Your task to perform on an android device: Open calendar and show me the first week of next month Image 0: 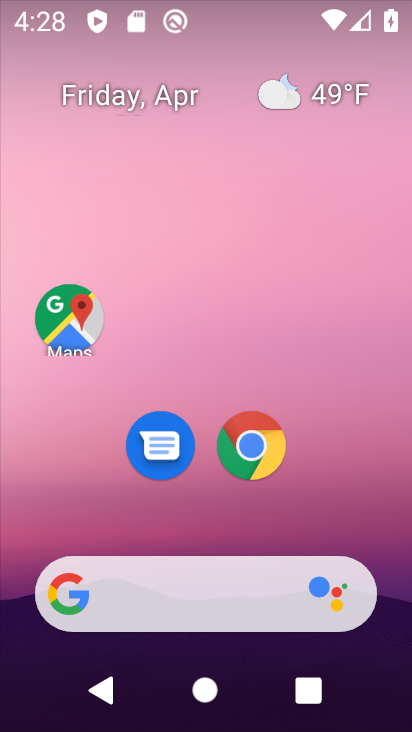
Step 0: drag from (335, 495) to (294, 128)
Your task to perform on an android device: Open calendar and show me the first week of next month Image 1: 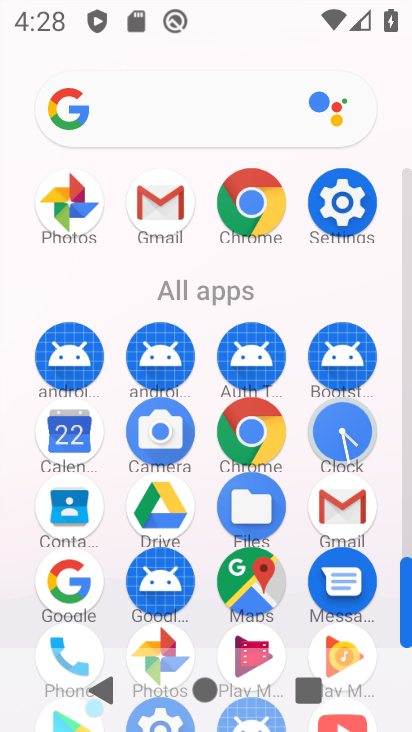
Step 1: drag from (82, 516) to (139, 294)
Your task to perform on an android device: Open calendar and show me the first week of next month Image 2: 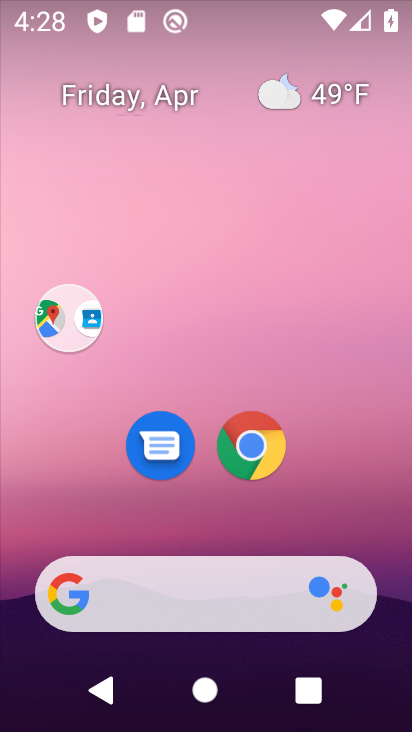
Step 2: drag from (342, 524) to (310, 198)
Your task to perform on an android device: Open calendar and show me the first week of next month Image 3: 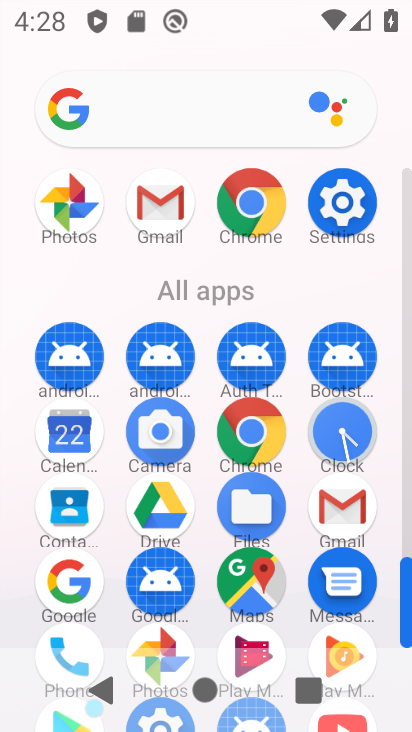
Step 3: click (73, 439)
Your task to perform on an android device: Open calendar and show me the first week of next month Image 4: 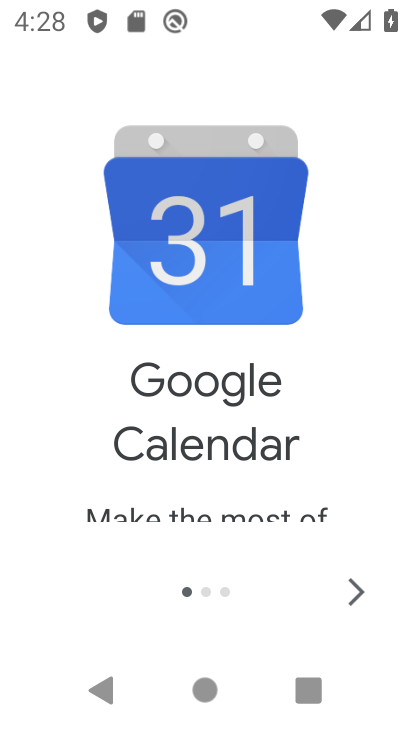
Step 4: click (351, 593)
Your task to perform on an android device: Open calendar and show me the first week of next month Image 5: 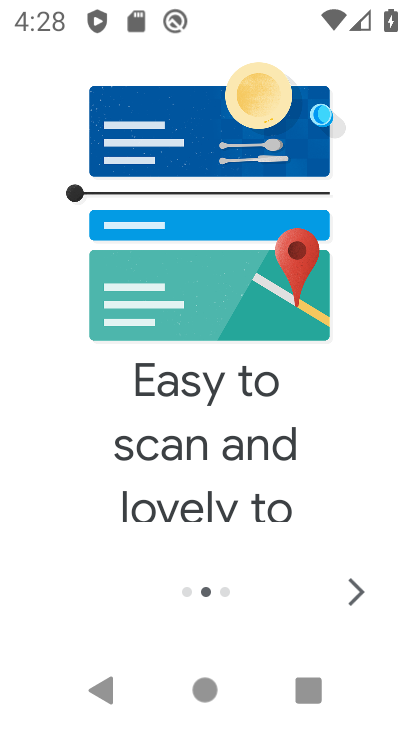
Step 5: click (350, 592)
Your task to perform on an android device: Open calendar and show me the first week of next month Image 6: 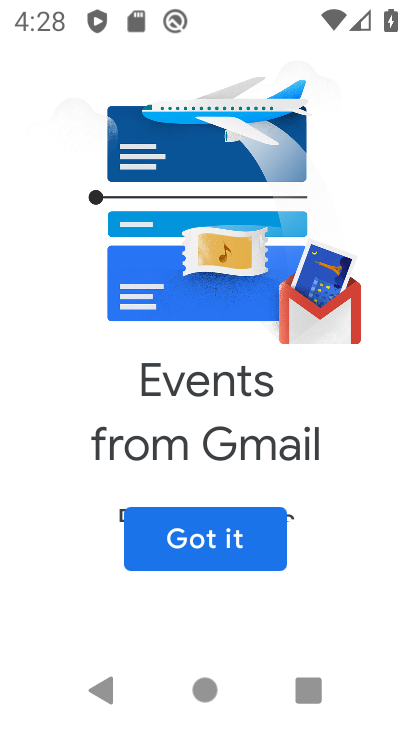
Step 6: click (261, 556)
Your task to perform on an android device: Open calendar and show me the first week of next month Image 7: 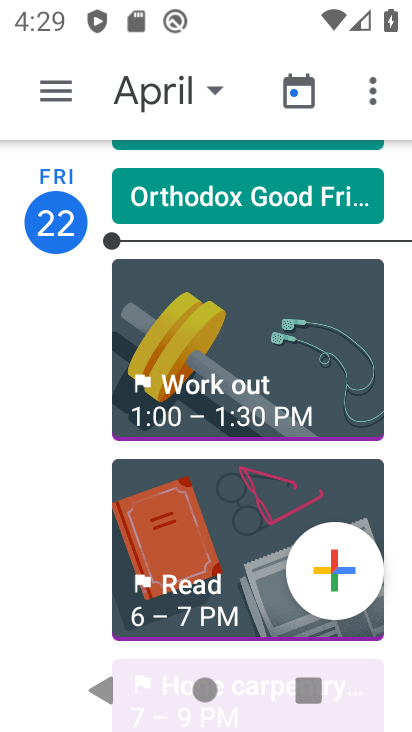
Step 7: click (147, 101)
Your task to perform on an android device: Open calendar and show me the first week of next month Image 8: 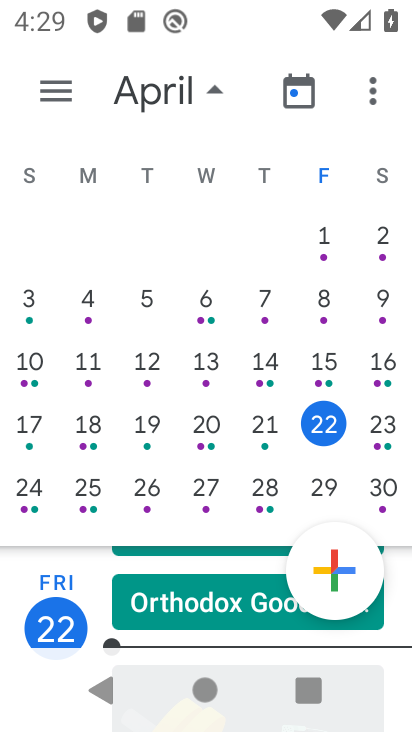
Step 8: drag from (387, 336) to (24, 331)
Your task to perform on an android device: Open calendar and show me the first week of next month Image 9: 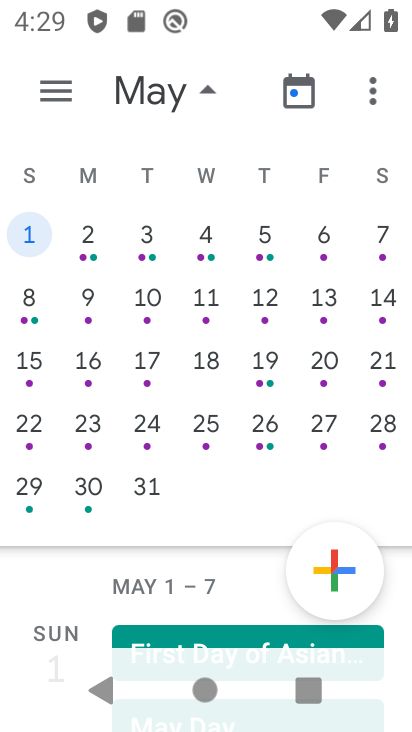
Step 9: click (207, 234)
Your task to perform on an android device: Open calendar and show me the first week of next month Image 10: 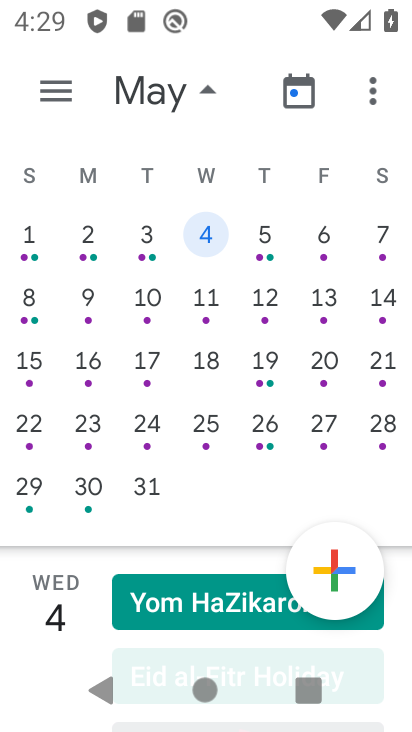
Step 10: task complete